Your task to perform on an android device: open wifi settings Image 0: 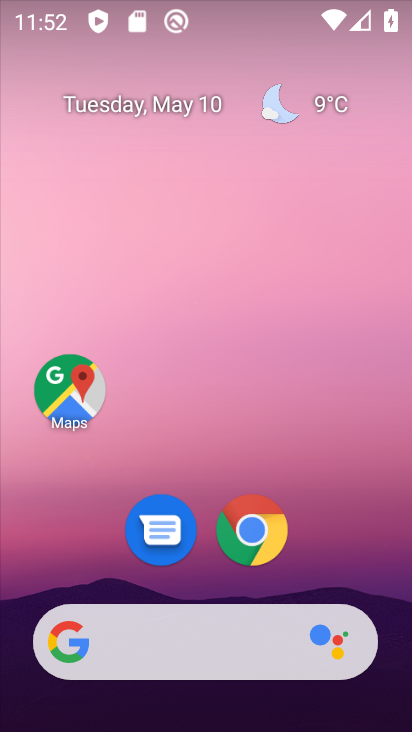
Step 0: drag from (350, 510) to (338, 95)
Your task to perform on an android device: open wifi settings Image 1: 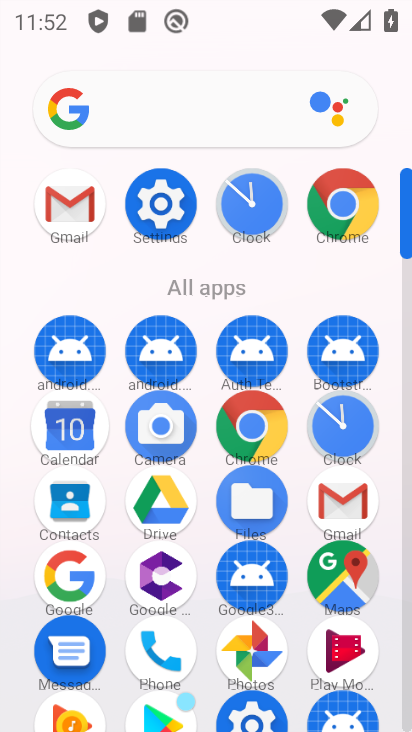
Step 1: drag from (343, 262) to (357, 678)
Your task to perform on an android device: open wifi settings Image 2: 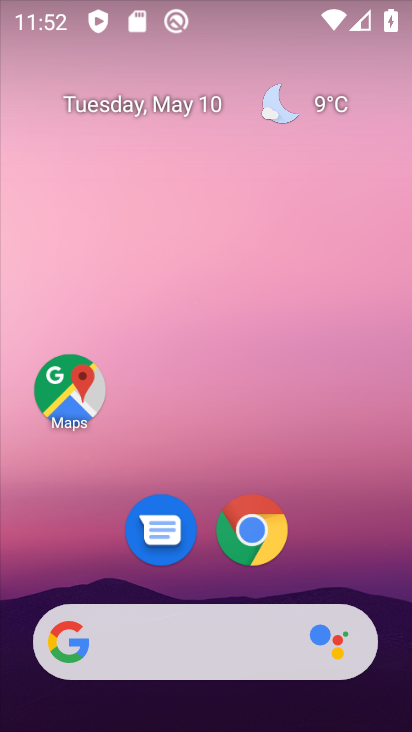
Step 2: drag from (304, 2) to (216, 653)
Your task to perform on an android device: open wifi settings Image 3: 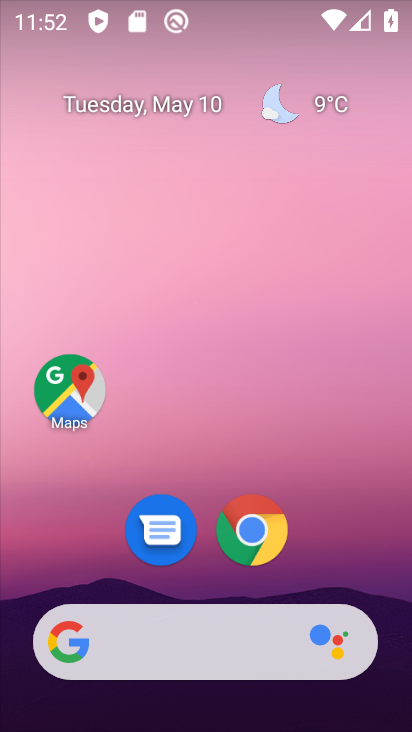
Step 3: drag from (369, 16) to (309, 344)
Your task to perform on an android device: open wifi settings Image 4: 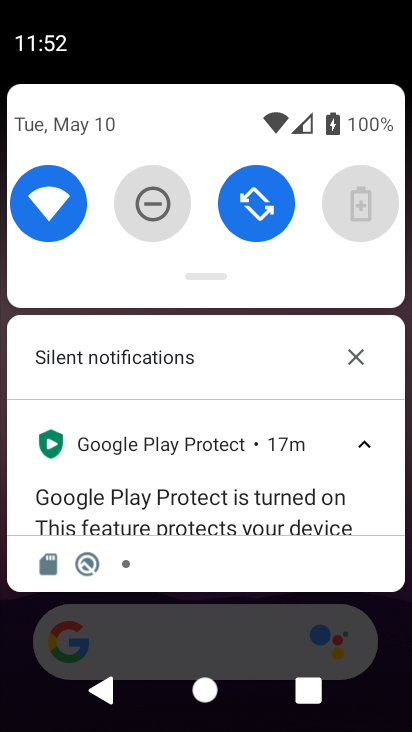
Step 4: click (51, 195)
Your task to perform on an android device: open wifi settings Image 5: 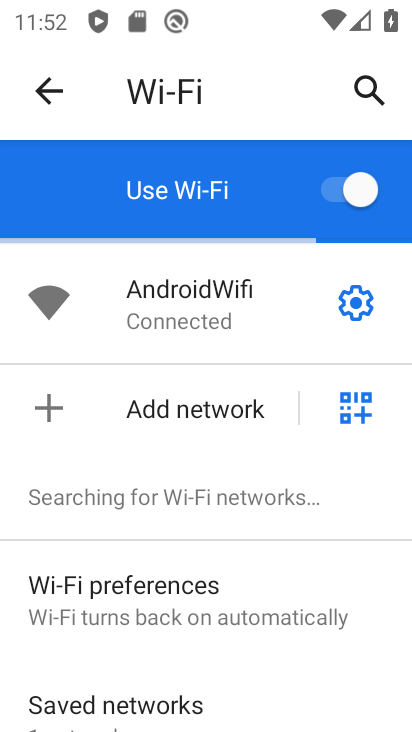
Step 5: task complete